Your task to perform on an android device: What's the weather going to be tomorrow? Image 0: 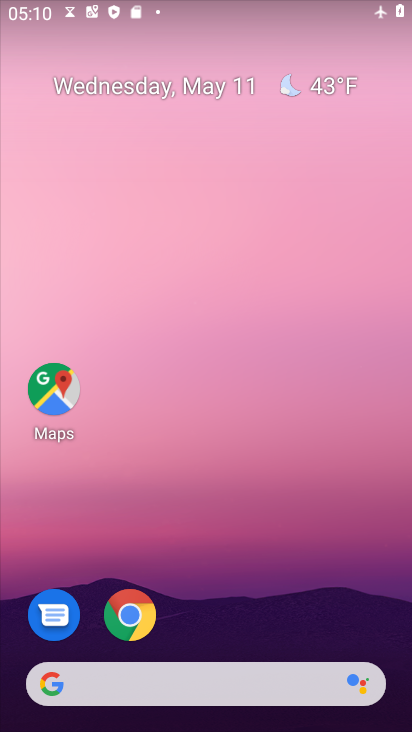
Step 0: drag from (252, 581) to (203, 26)
Your task to perform on an android device: What's the weather going to be tomorrow? Image 1: 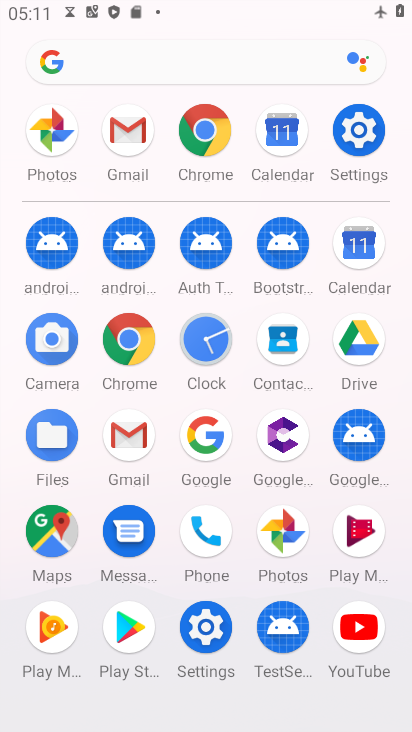
Step 1: drag from (7, 498) to (5, 208)
Your task to perform on an android device: What's the weather going to be tomorrow? Image 2: 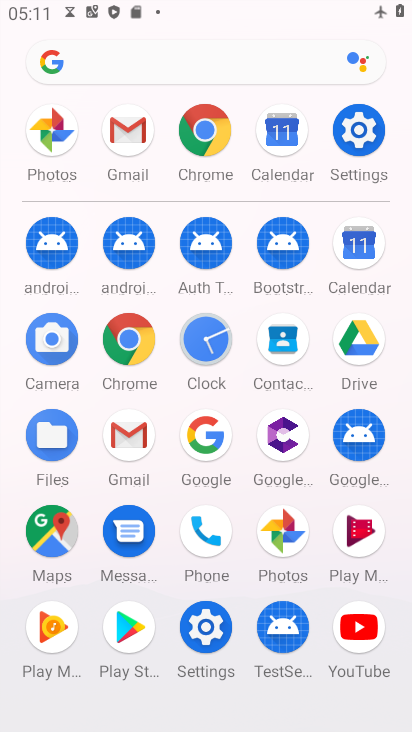
Step 2: click (124, 339)
Your task to perform on an android device: What's the weather going to be tomorrow? Image 3: 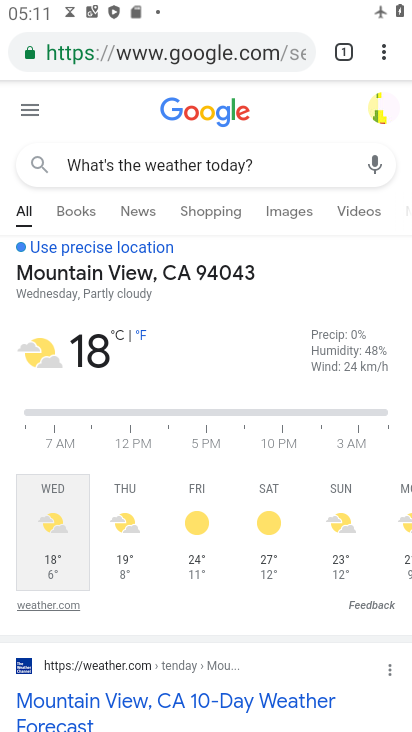
Step 3: click (203, 49)
Your task to perform on an android device: What's the weather going to be tomorrow? Image 4: 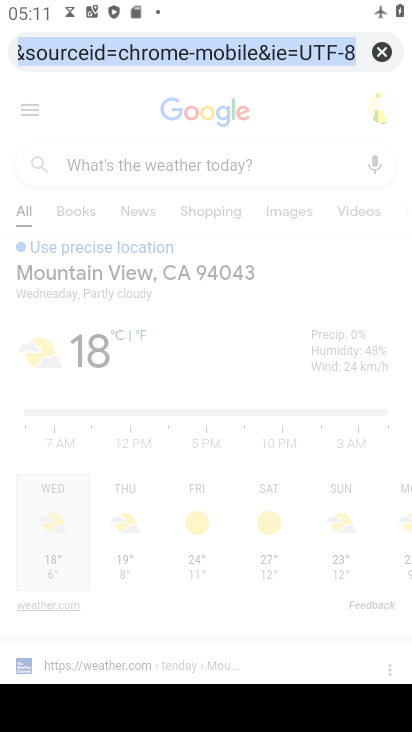
Step 4: click (385, 49)
Your task to perform on an android device: What's the weather going to be tomorrow? Image 5: 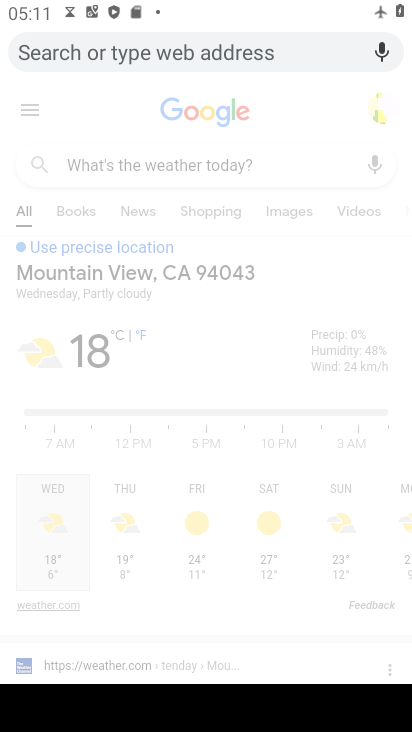
Step 5: type "What's the weather going to be tomorrow?"
Your task to perform on an android device: What's the weather going to be tomorrow? Image 6: 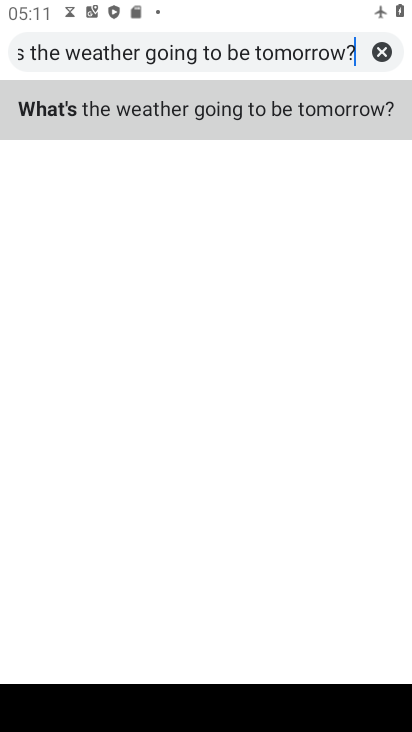
Step 6: type ""
Your task to perform on an android device: What's the weather going to be tomorrow? Image 7: 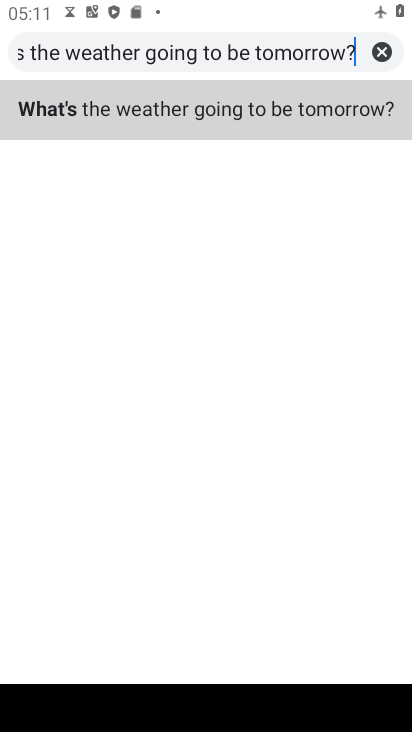
Step 7: click (201, 100)
Your task to perform on an android device: What's the weather going to be tomorrow? Image 8: 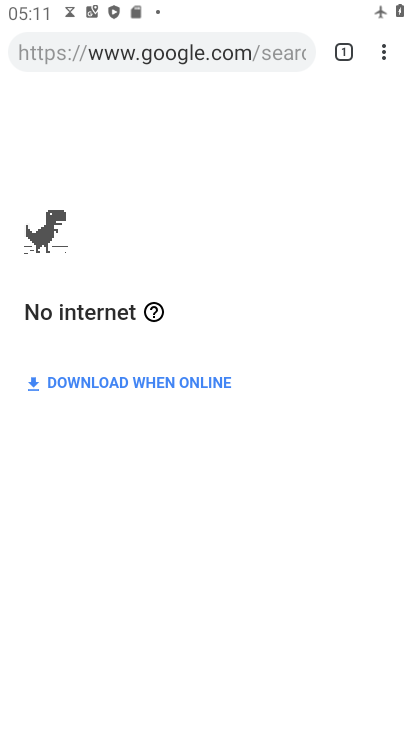
Step 8: task complete